Your task to perform on an android device: turn on data saver in the chrome app Image 0: 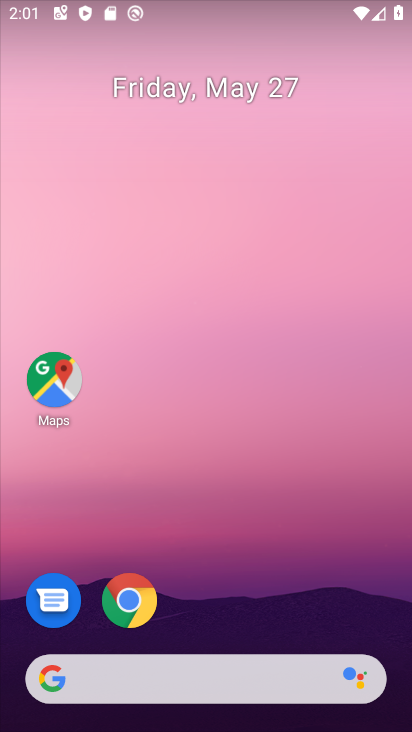
Step 0: click (136, 601)
Your task to perform on an android device: turn on data saver in the chrome app Image 1: 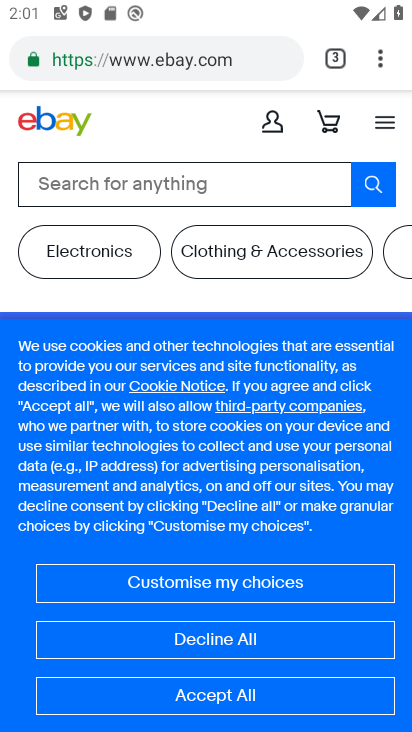
Step 1: click (379, 64)
Your task to perform on an android device: turn on data saver in the chrome app Image 2: 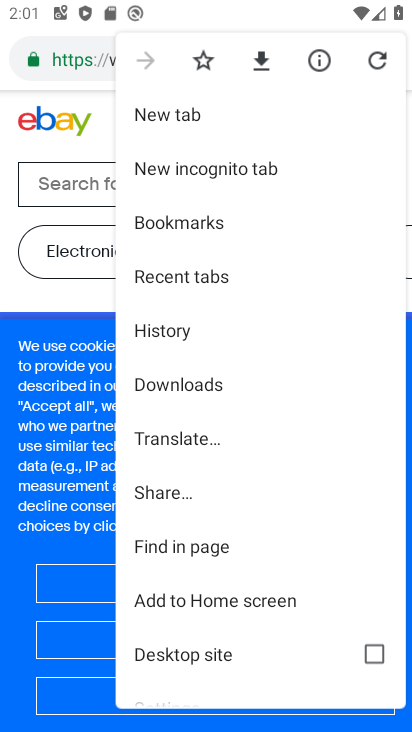
Step 2: drag from (184, 629) to (207, 259)
Your task to perform on an android device: turn on data saver in the chrome app Image 3: 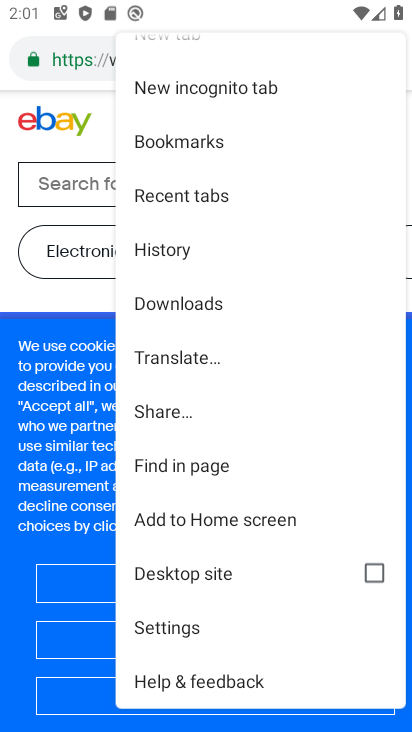
Step 3: click (166, 625)
Your task to perform on an android device: turn on data saver in the chrome app Image 4: 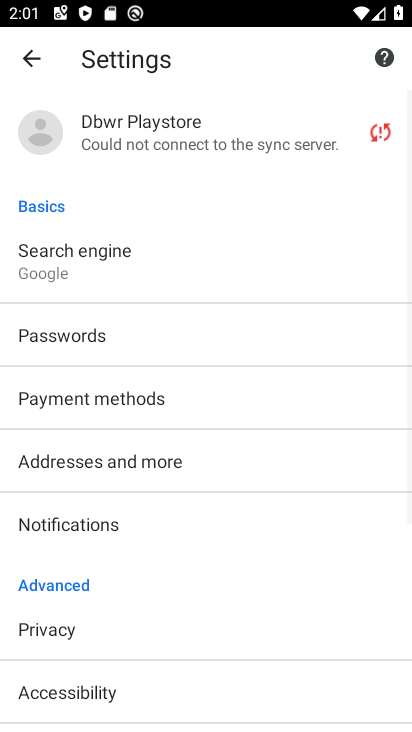
Step 4: drag from (99, 659) to (117, 267)
Your task to perform on an android device: turn on data saver in the chrome app Image 5: 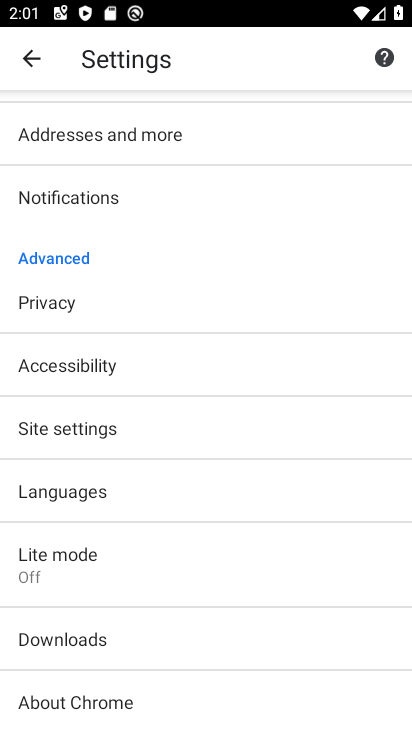
Step 5: click (66, 555)
Your task to perform on an android device: turn on data saver in the chrome app Image 6: 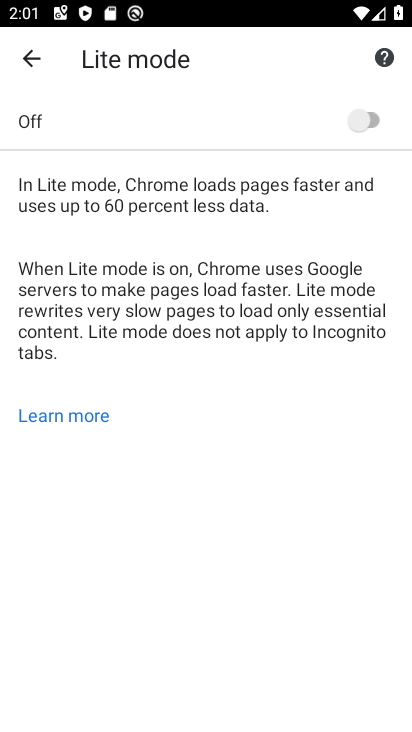
Step 6: click (374, 119)
Your task to perform on an android device: turn on data saver in the chrome app Image 7: 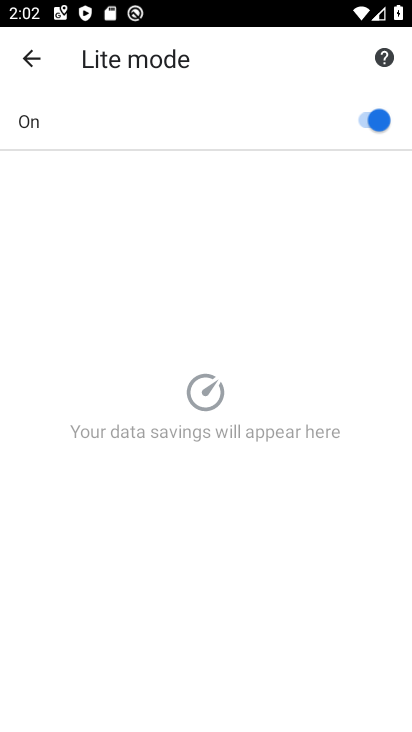
Step 7: task complete